Your task to perform on an android device: Open Youtube and go to the subscriptions tab Image 0: 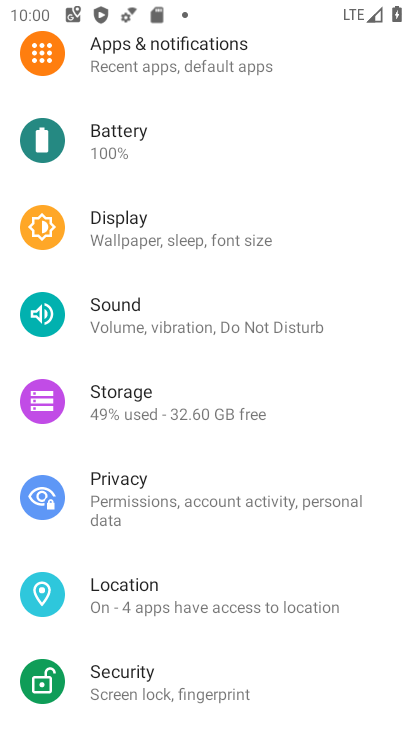
Step 0: press home button
Your task to perform on an android device: Open Youtube and go to the subscriptions tab Image 1: 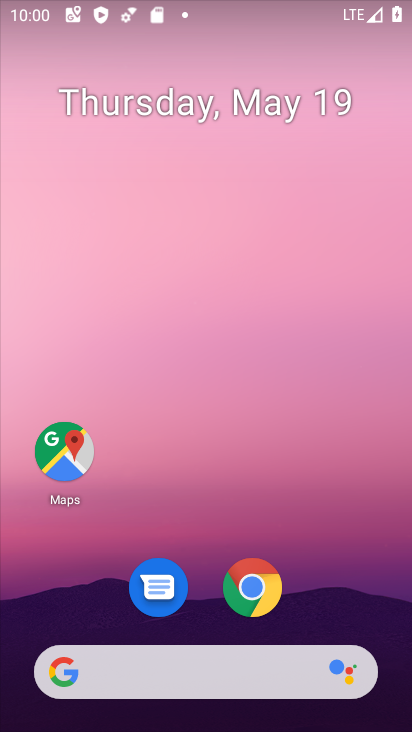
Step 1: drag from (201, 619) to (185, 171)
Your task to perform on an android device: Open Youtube and go to the subscriptions tab Image 2: 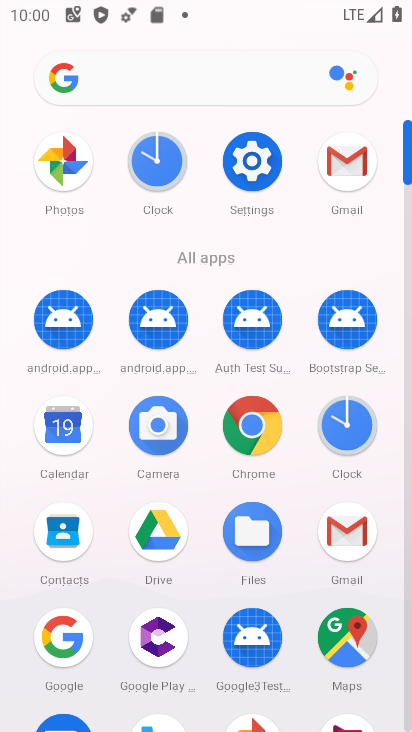
Step 2: drag from (200, 664) to (184, 341)
Your task to perform on an android device: Open Youtube and go to the subscriptions tab Image 3: 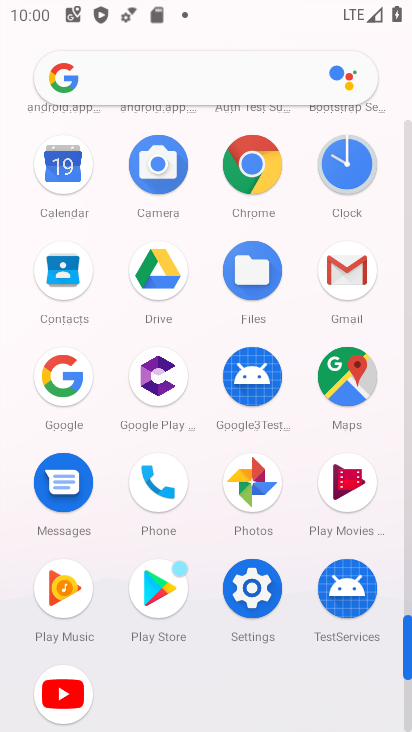
Step 3: click (56, 697)
Your task to perform on an android device: Open Youtube and go to the subscriptions tab Image 4: 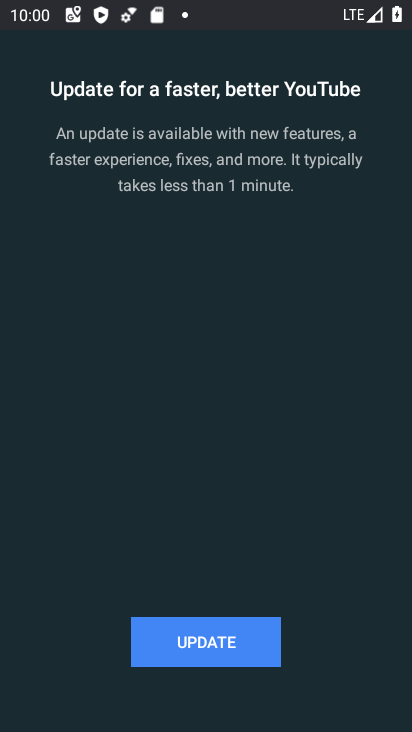
Step 4: click (203, 663)
Your task to perform on an android device: Open Youtube and go to the subscriptions tab Image 5: 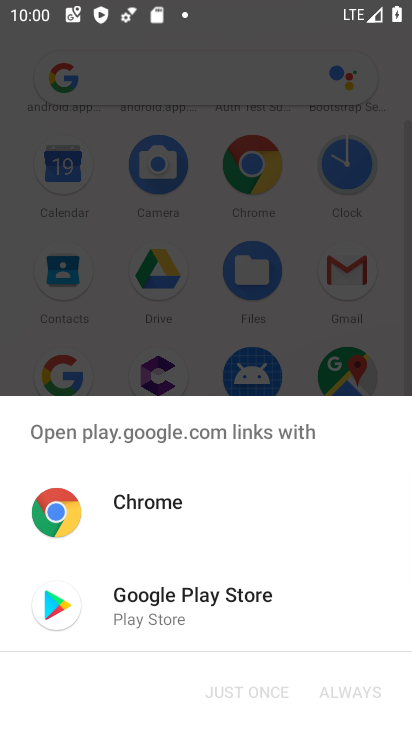
Step 5: click (195, 628)
Your task to perform on an android device: Open Youtube and go to the subscriptions tab Image 6: 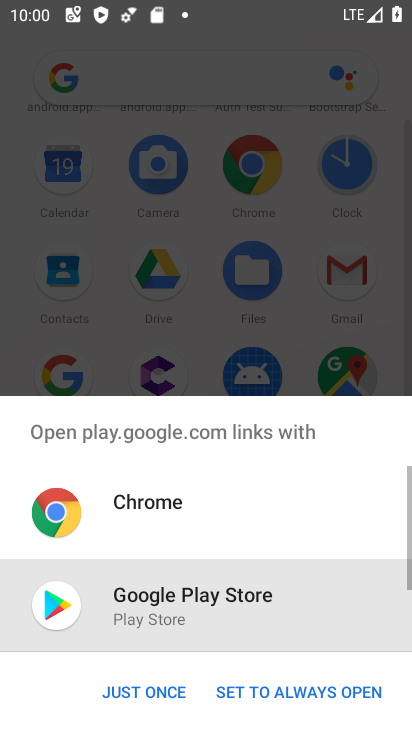
Step 6: click (158, 683)
Your task to perform on an android device: Open Youtube and go to the subscriptions tab Image 7: 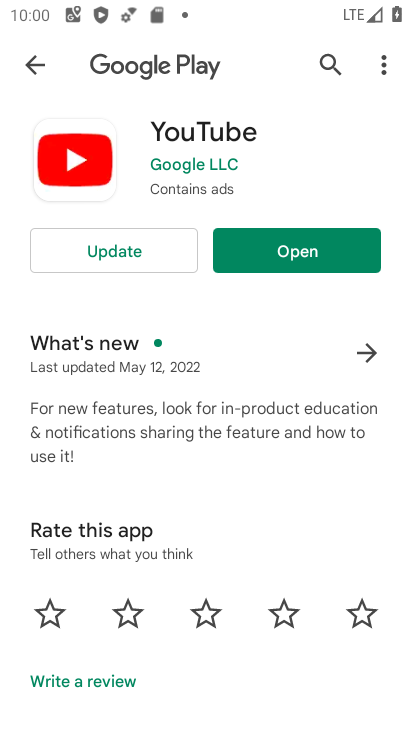
Step 7: click (277, 266)
Your task to perform on an android device: Open Youtube and go to the subscriptions tab Image 8: 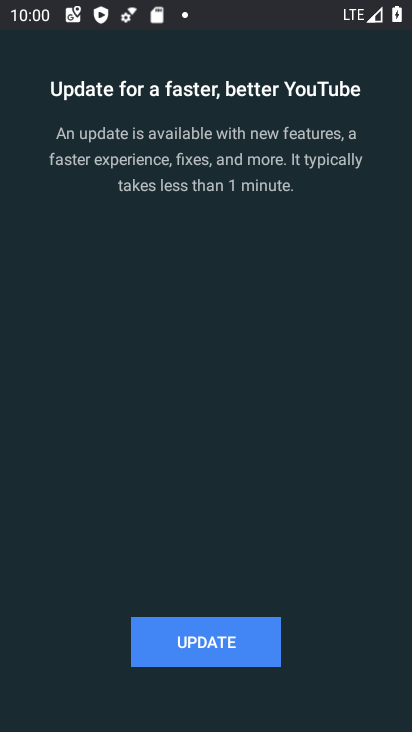
Step 8: click (190, 626)
Your task to perform on an android device: Open Youtube and go to the subscriptions tab Image 9: 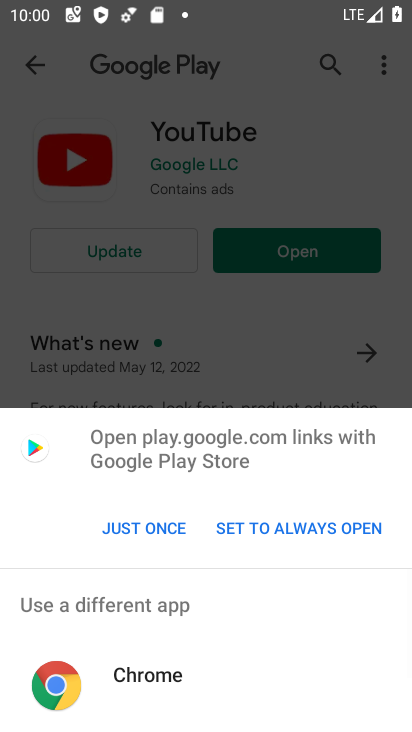
Step 9: click (157, 534)
Your task to perform on an android device: Open Youtube and go to the subscriptions tab Image 10: 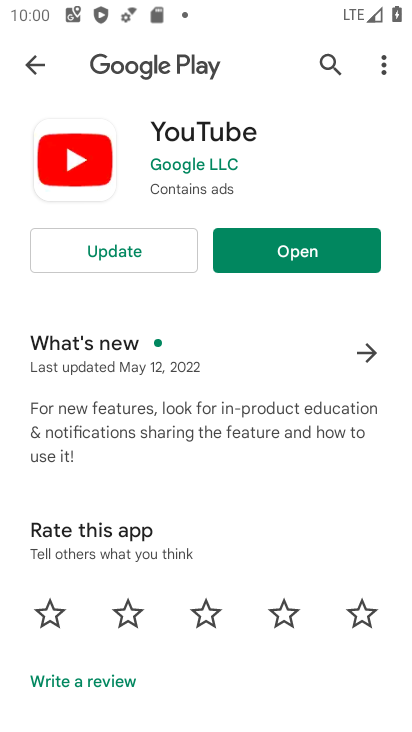
Step 10: click (116, 260)
Your task to perform on an android device: Open Youtube and go to the subscriptions tab Image 11: 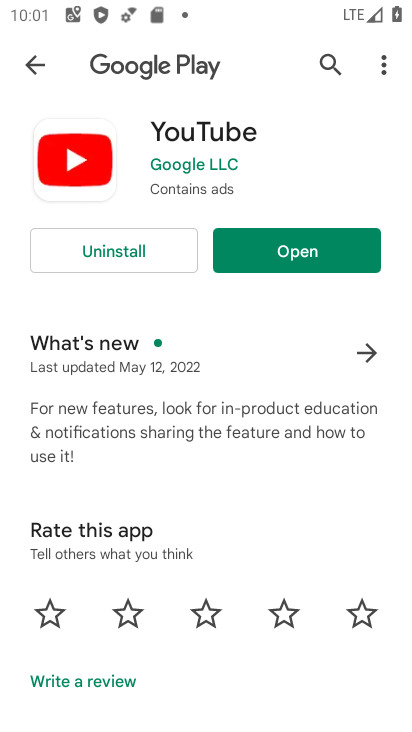
Step 11: click (311, 257)
Your task to perform on an android device: Open Youtube and go to the subscriptions tab Image 12: 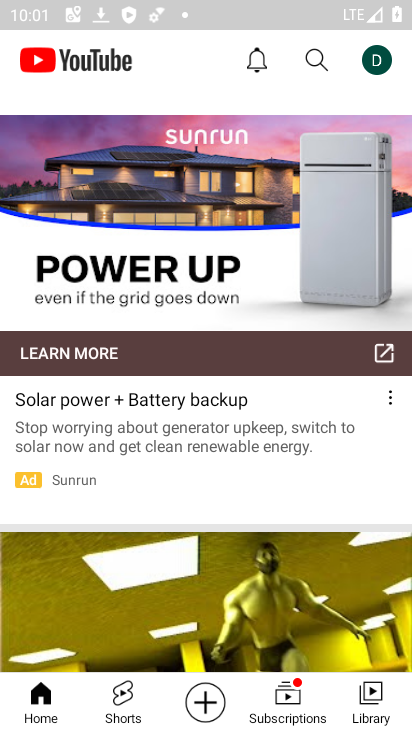
Step 12: click (294, 716)
Your task to perform on an android device: Open Youtube and go to the subscriptions tab Image 13: 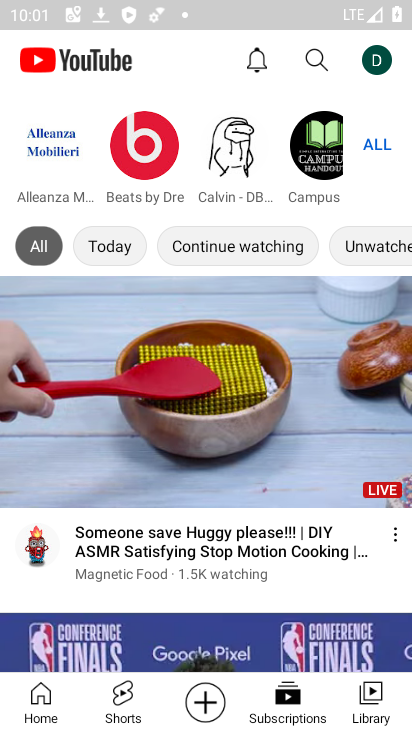
Step 13: task complete